Your task to perform on an android device: Open battery settings Image 0: 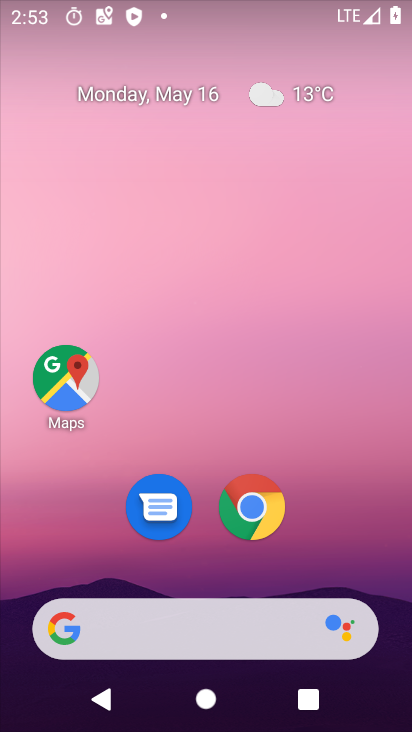
Step 0: drag from (383, 564) to (384, 113)
Your task to perform on an android device: Open battery settings Image 1: 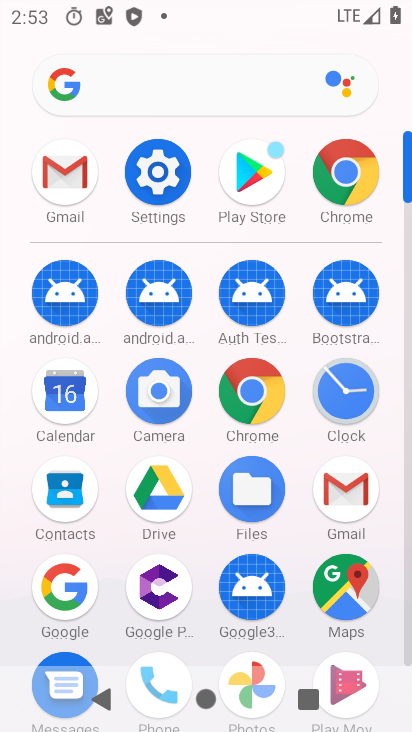
Step 1: click (173, 181)
Your task to perform on an android device: Open battery settings Image 2: 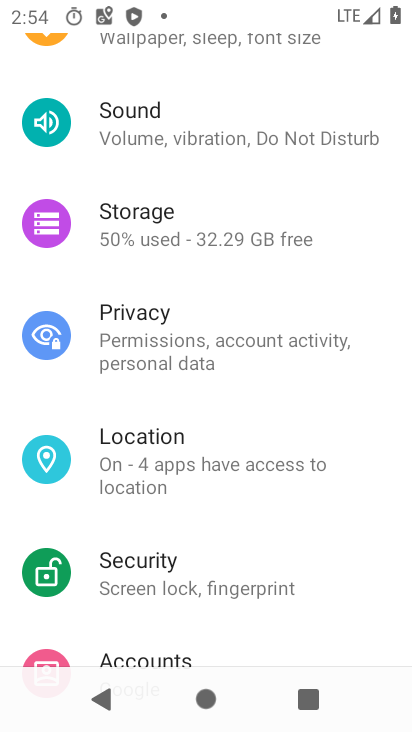
Step 2: drag from (359, 566) to (372, 355)
Your task to perform on an android device: Open battery settings Image 3: 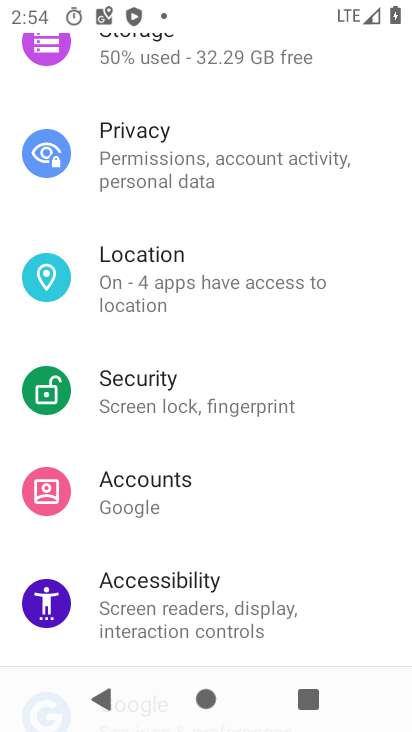
Step 3: drag from (339, 610) to (351, 376)
Your task to perform on an android device: Open battery settings Image 4: 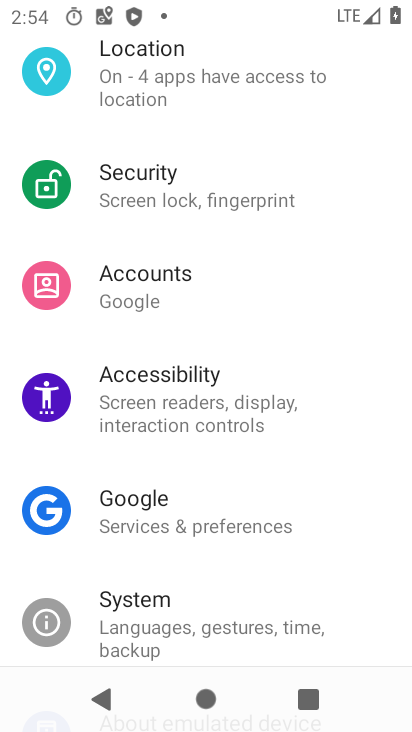
Step 4: drag from (334, 558) to (331, 371)
Your task to perform on an android device: Open battery settings Image 5: 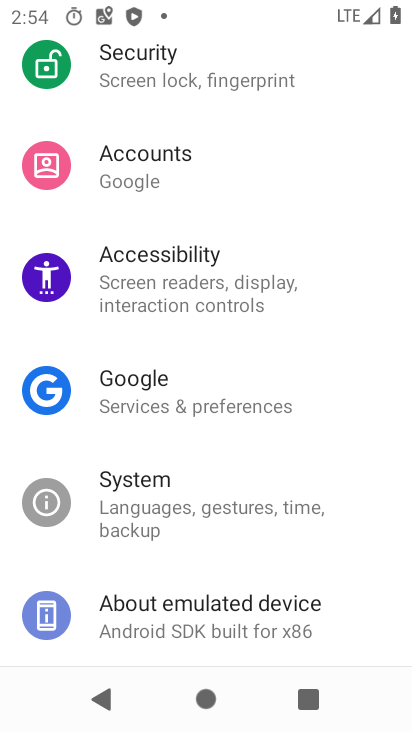
Step 5: drag from (347, 574) to (352, 355)
Your task to perform on an android device: Open battery settings Image 6: 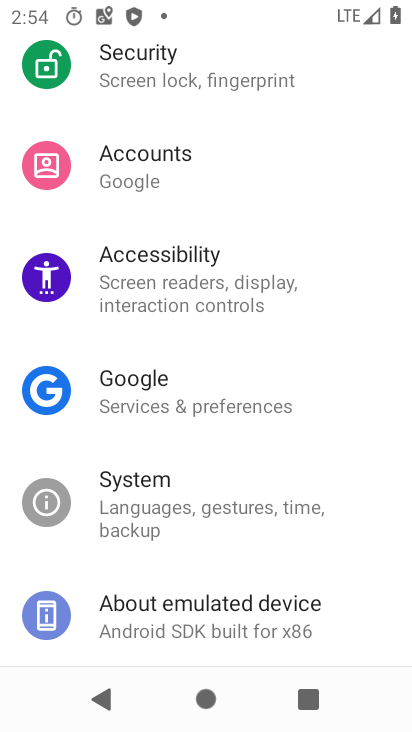
Step 6: drag from (354, 227) to (346, 398)
Your task to perform on an android device: Open battery settings Image 7: 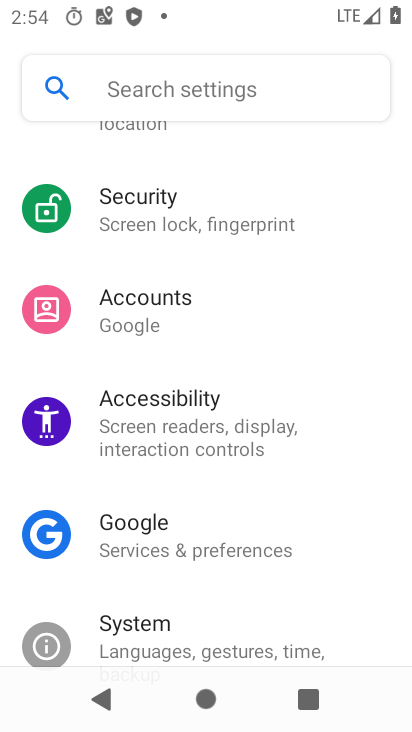
Step 7: drag from (345, 213) to (345, 411)
Your task to perform on an android device: Open battery settings Image 8: 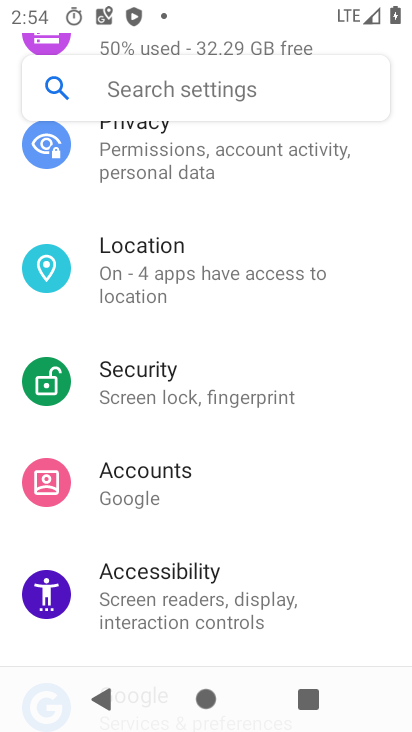
Step 8: drag from (361, 217) to (355, 385)
Your task to perform on an android device: Open battery settings Image 9: 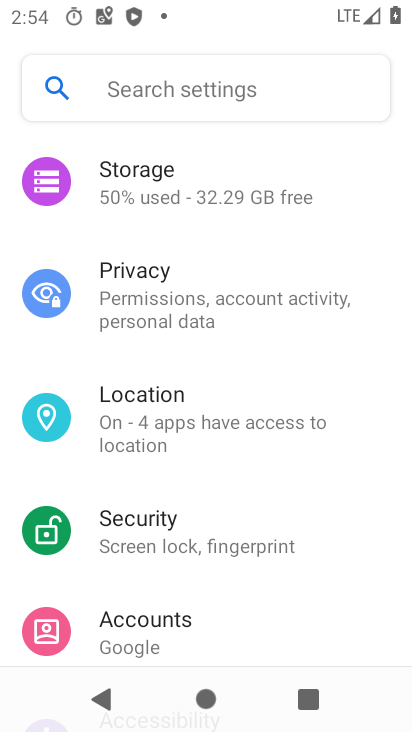
Step 9: drag from (363, 195) to (364, 354)
Your task to perform on an android device: Open battery settings Image 10: 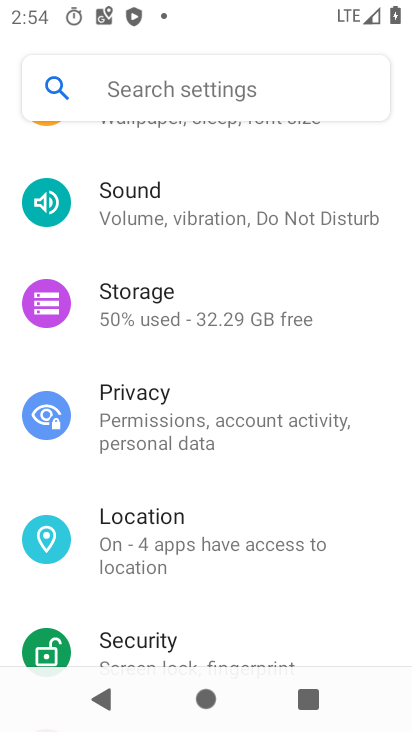
Step 10: drag from (370, 169) to (372, 356)
Your task to perform on an android device: Open battery settings Image 11: 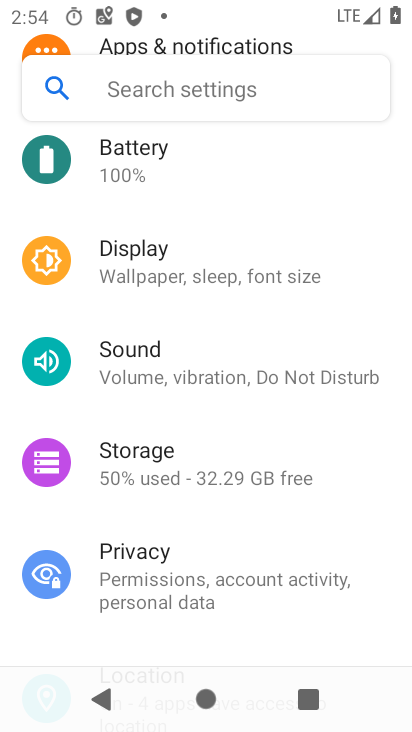
Step 11: drag from (338, 172) to (334, 353)
Your task to perform on an android device: Open battery settings Image 12: 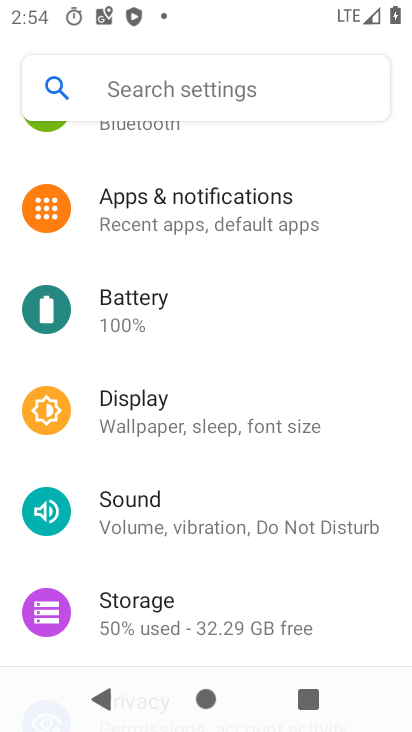
Step 12: click (182, 321)
Your task to perform on an android device: Open battery settings Image 13: 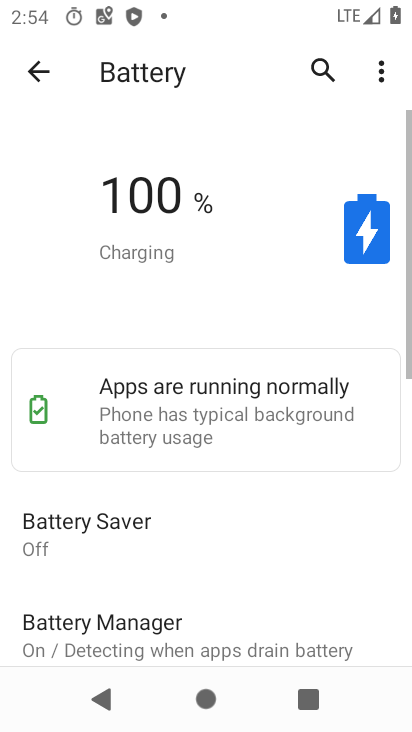
Step 13: task complete